Your task to perform on an android device: Open the map Image 0: 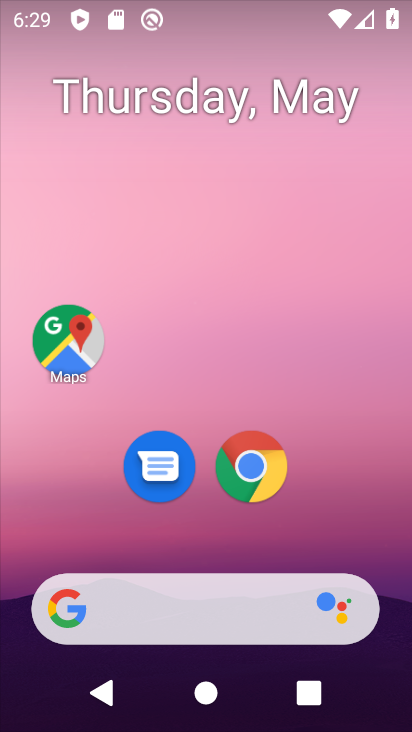
Step 0: click (70, 341)
Your task to perform on an android device: Open the map Image 1: 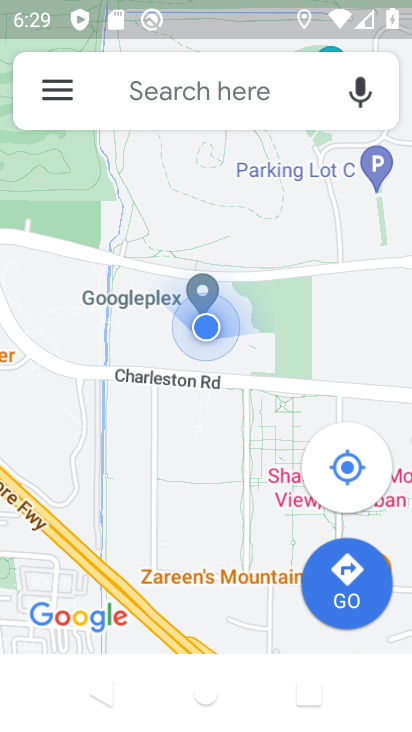
Step 1: task complete